Your task to perform on an android device: turn on sleep mode Image 0: 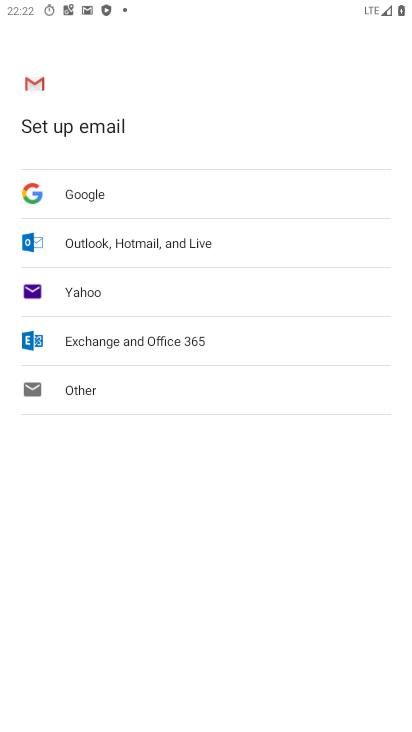
Step 0: press home button
Your task to perform on an android device: turn on sleep mode Image 1: 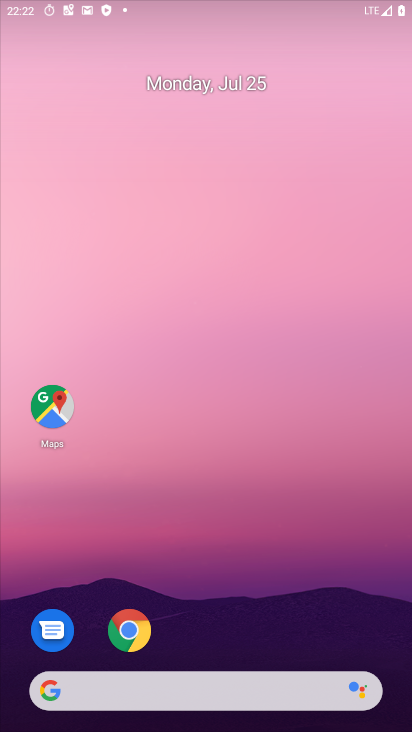
Step 1: drag from (282, 627) to (270, 105)
Your task to perform on an android device: turn on sleep mode Image 2: 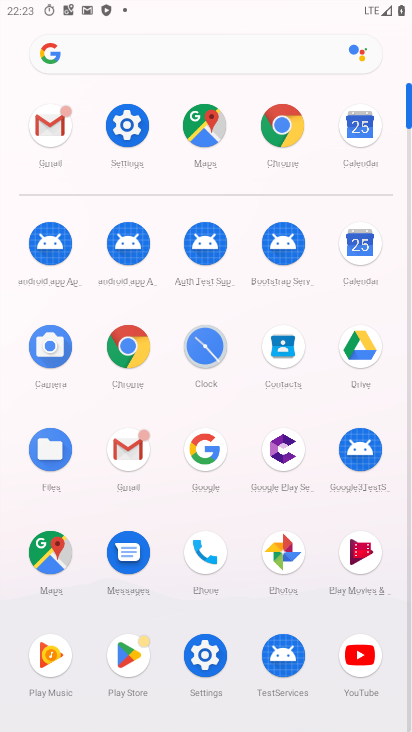
Step 2: click (145, 116)
Your task to perform on an android device: turn on sleep mode Image 3: 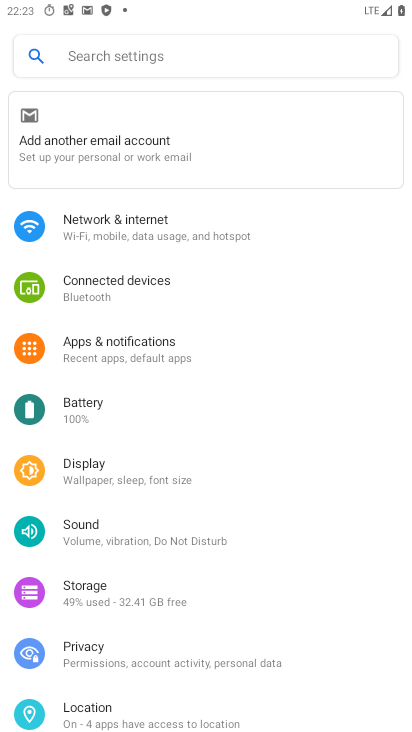
Step 3: click (72, 474)
Your task to perform on an android device: turn on sleep mode Image 4: 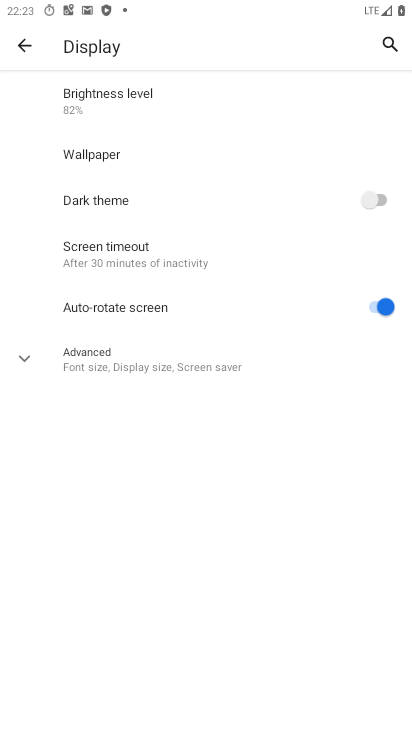
Step 4: click (26, 355)
Your task to perform on an android device: turn on sleep mode Image 5: 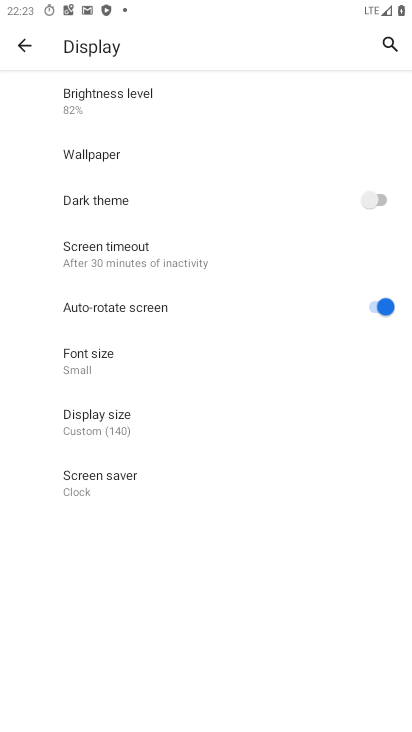
Step 5: task complete